Your task to perform on an android device: find which apps use the phone's location Image 0: 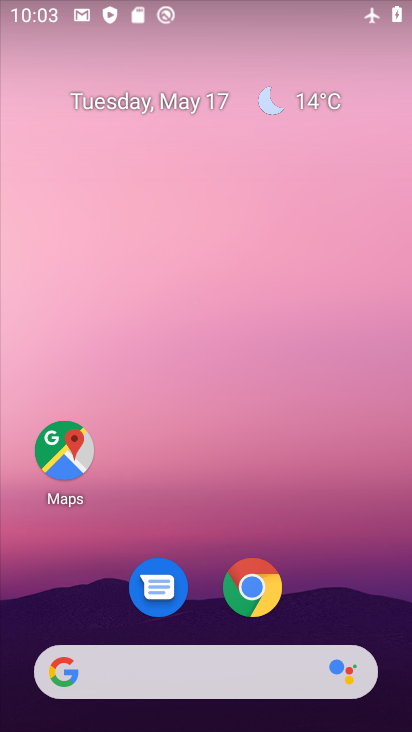
Step 0: drag from (311, 628) to (259, 23)
Your task to perform on an android device: find which apps use the phone's location Image 1: 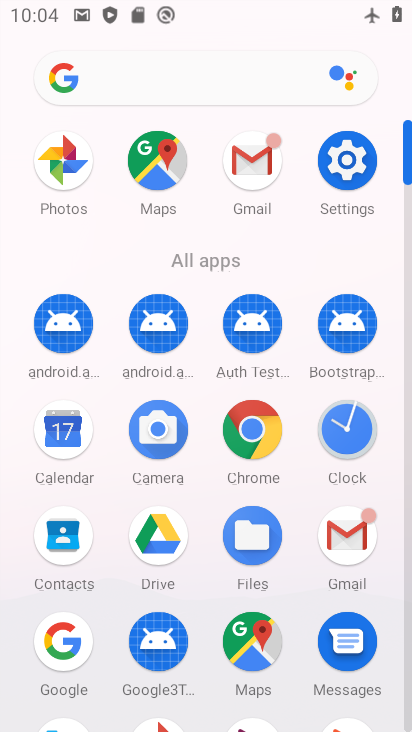
Step 1: click (356, 149)
Your task to perform on an android device: find which apps use the phone's location Image 2: 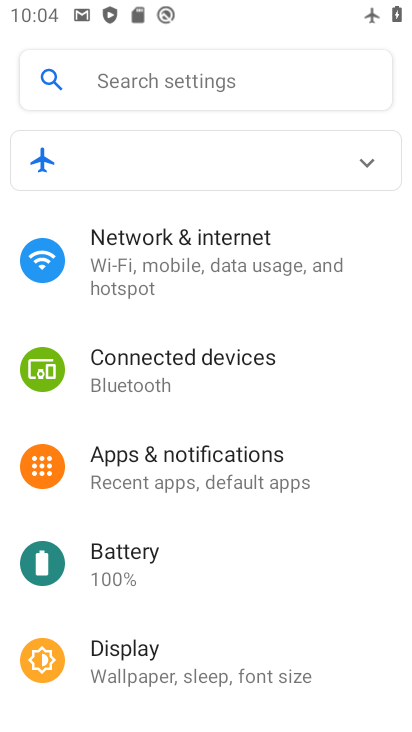
Step 2: drag from (185, 562) to (142, 42)
Your task to perform on an android device: find which apps use the phone's location Image 3: 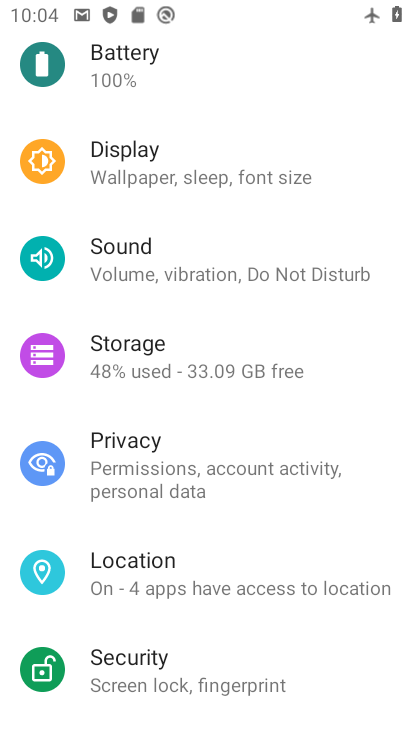
Step 3: drag from (184, 472) to (141, 26)
Your task to perform on an android device: find which apps use the phone's location Image 4: 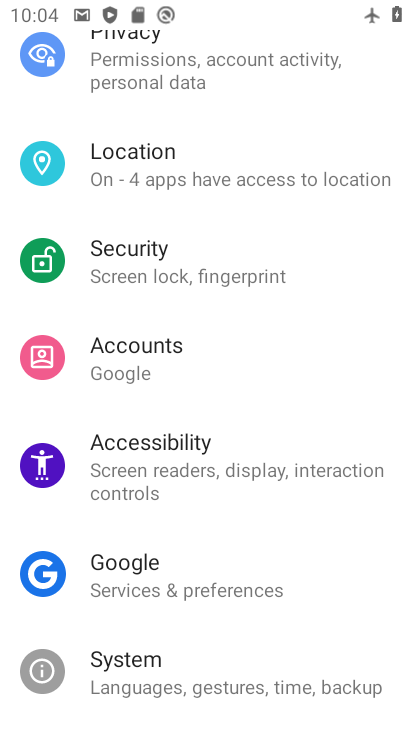
Step 4: click (126, 397)
Your task to perform on an android device: find which apps use the phone's location Image 5: 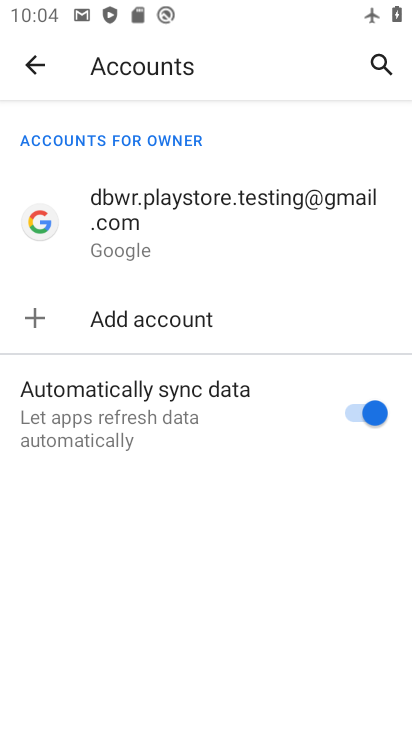
Step 5: click (34, 58)
Your task to perform on an android device: find which apps use the phone's location Image 6: 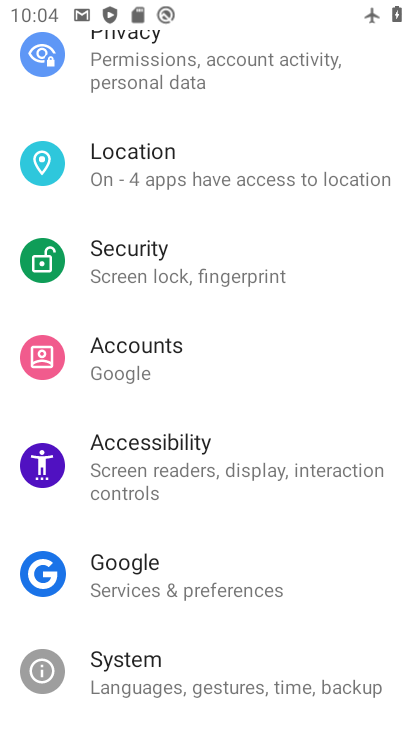
Step 6: click (141, 161)
Your task to perform on an android device: find which apps use the phone's location Image 7: 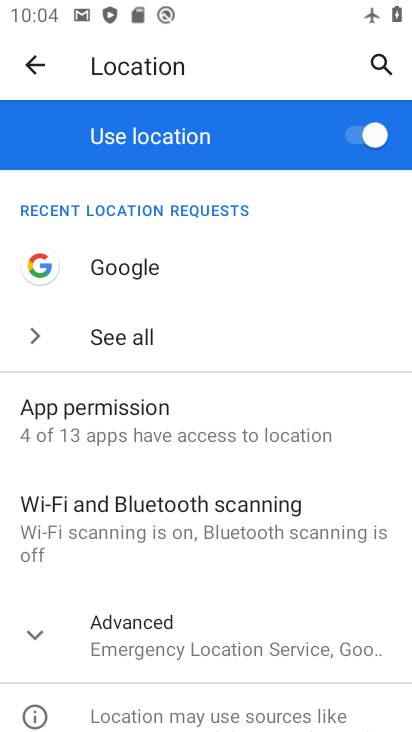
Step 7: click (70, 414)
Your task to perform on an android device: find which apps use the phone's location Image 8: 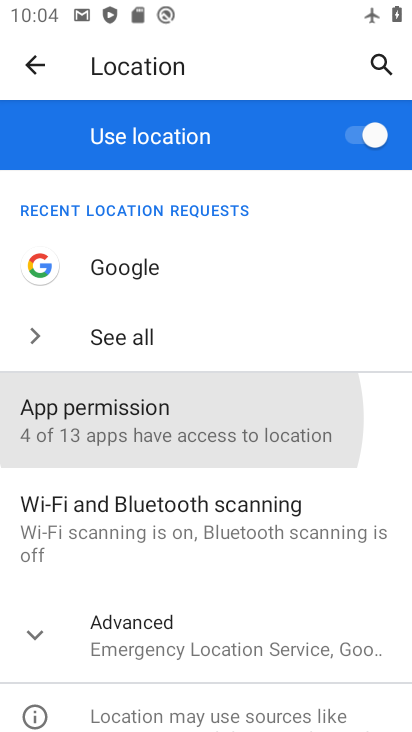
Step 8: click (70, 414)
Your task to perform on an android device: find which apps use the phone's location Image 9: 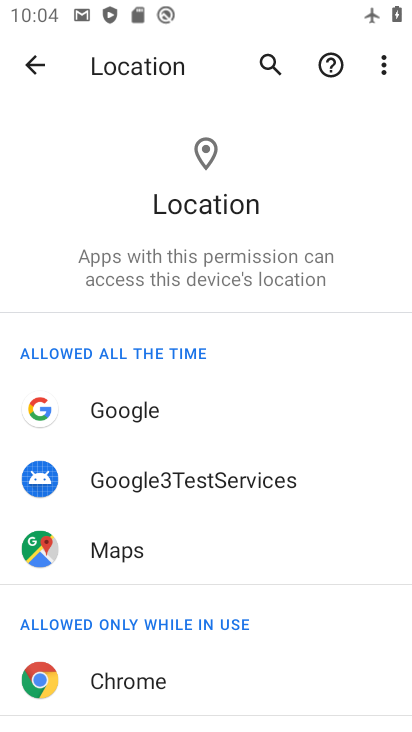
Step 9: click (163, 121)
Your task to perform on an android device: find which apps use the phone's location Image 10: 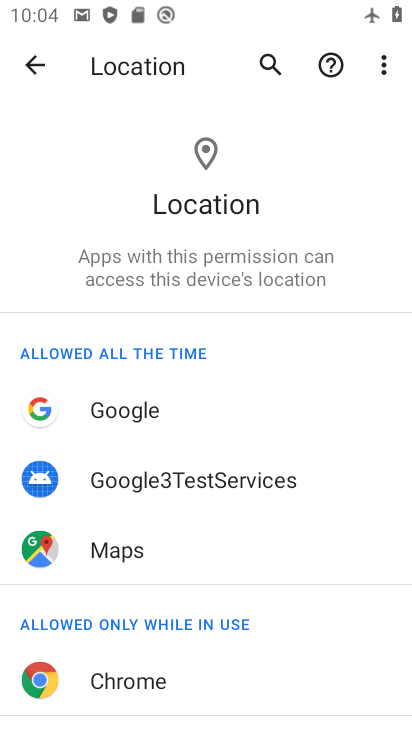
Step 10: task complete